Your task to perform on an android device: turn smart compose on in the gmail app Image 0: 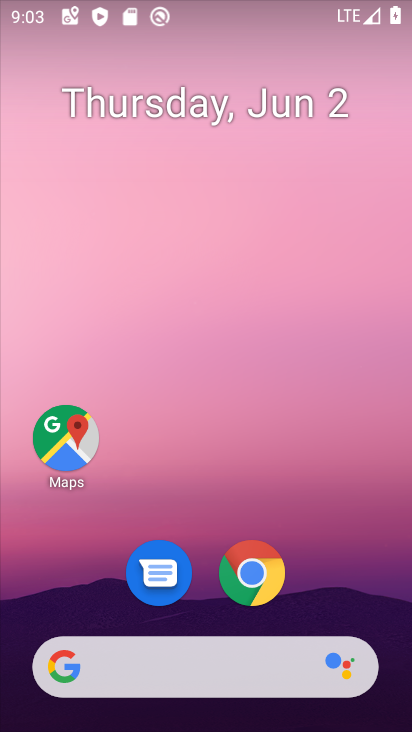
Step 0: press home button
Your task to perform on an android device: turn smart compose on in the gmail app Image 1: 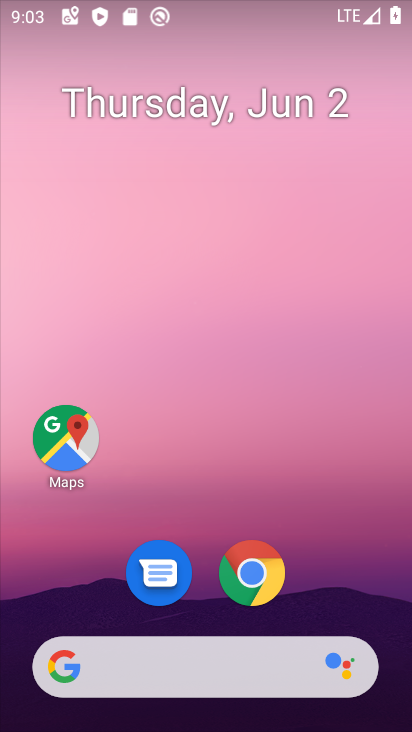
Step 1: drag from (387, 611) to (348, 0)
Your task to perform on an android device: turn smart compose on in the gmail app Image 2: 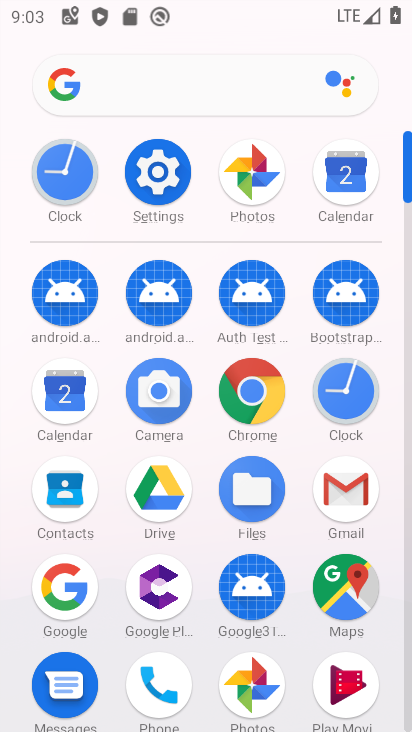
Step 2: click (373, 482)
Your task to perform on an android device: turn smart compose on in the gmail app Image 3: 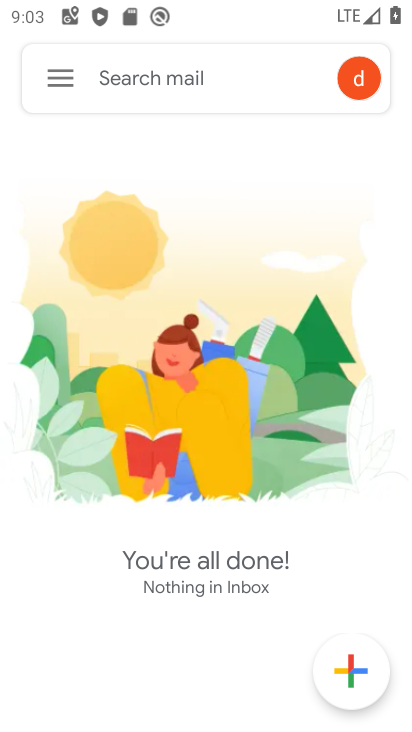
Step 3: click (59, 67)
Your task to perform on an android device: turn smart compose on in the gmail app Image 4: 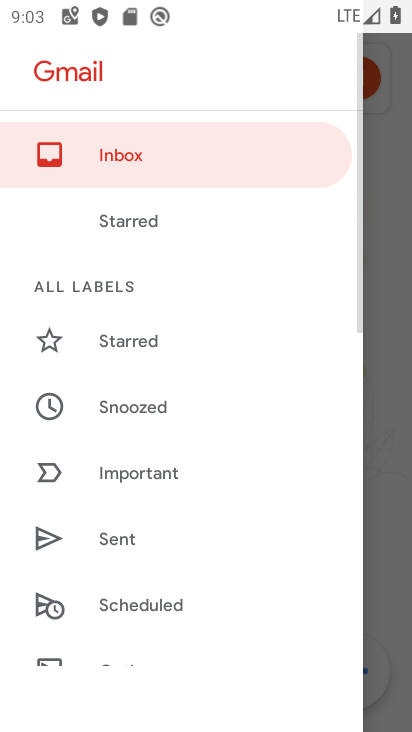
Step 4: drag from (195, 638) to (266, 368)
Your task to perform on an android device: turn smart compose on in the gmail app Image 5: 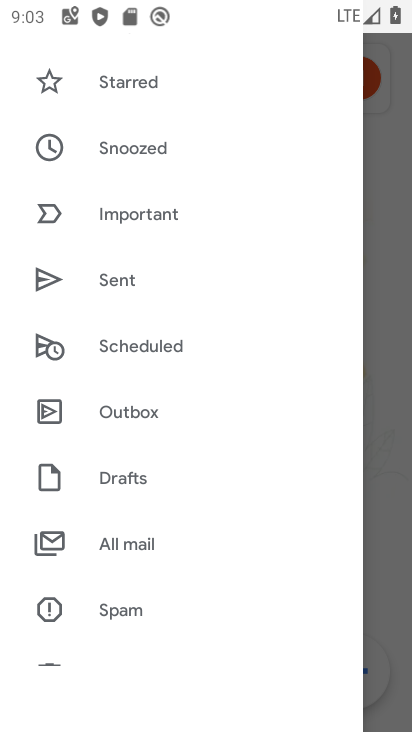
Step 5: drag from (205, 487) to (307, 139)
Your task to perform on an android device: turn smart compose on in the gmail app Image 6: 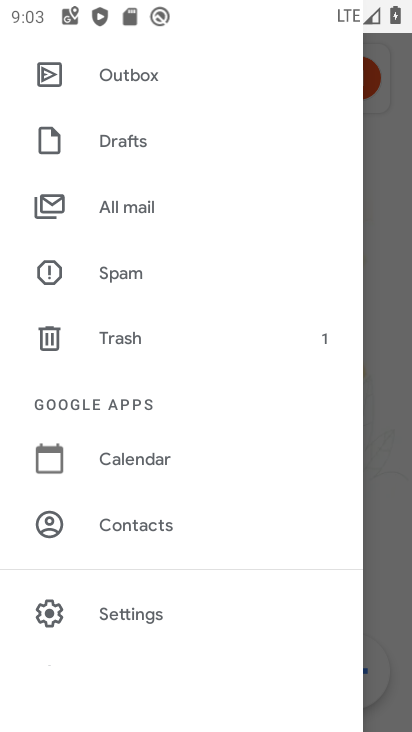
Step 6: click (144, 623)
Your task to perform on an android device: turn smart compose on in the gmail app Image 7: 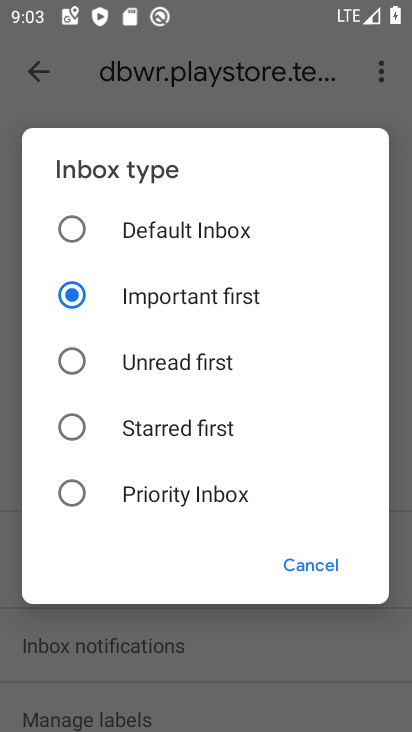
Step 7: click (179, 666)
Your task to perform on an android device: turn smart compose on in the gmail app Image 8: 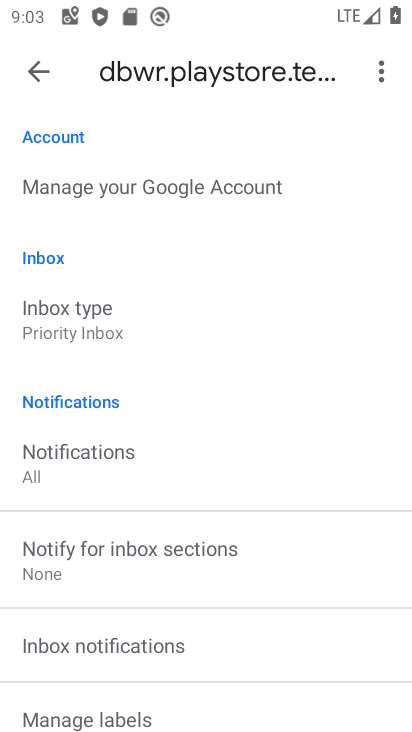
Step 8: task complete